Your task to perform on an android device: Open Wikipedia Image 0: 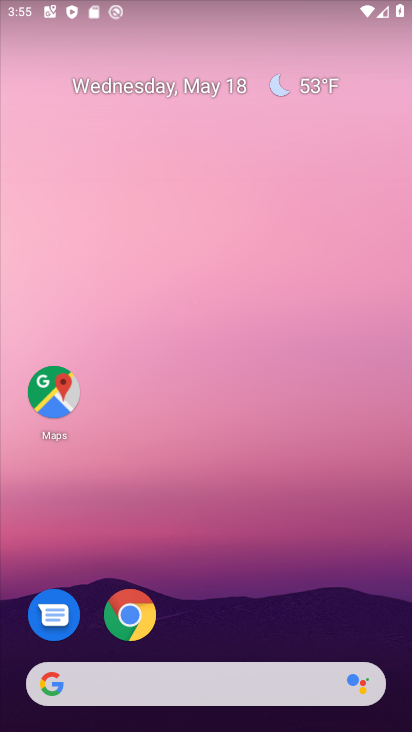
Step 0: click (128, 617)
Your task to perform on an android device: Open Wikipedia Image 1: 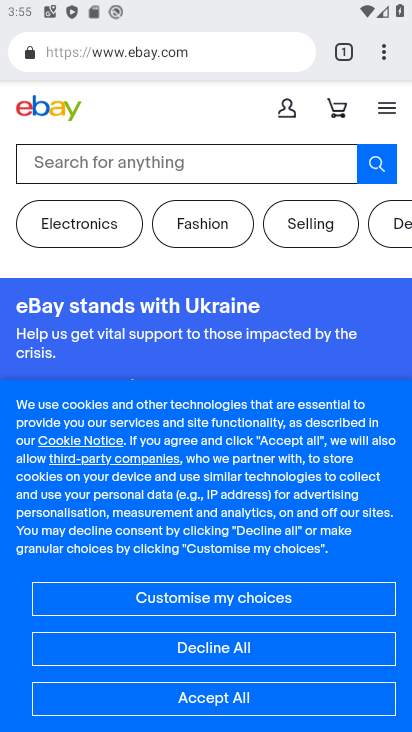
Step 1: click (227, 54)
Your task to perform on an android device: Open Wikipedia Image 2: 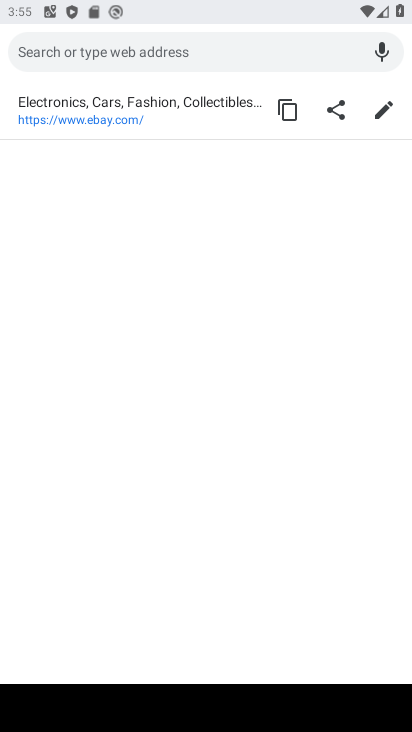
Step 2: type "wikipedia"
Your task to perform on an android device: Open Wikipedia Image 3: 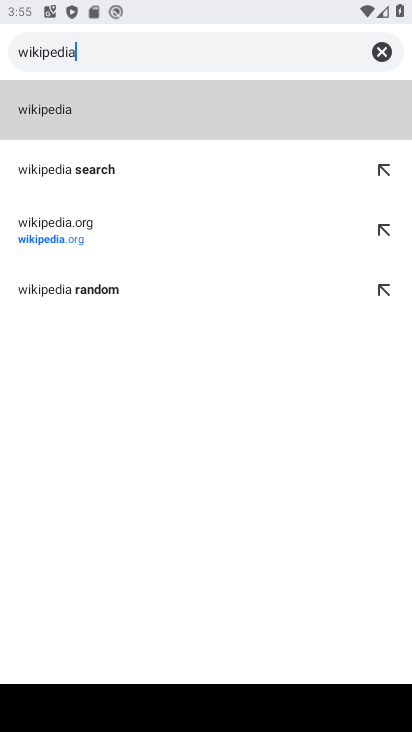
Step 3: click (65, 239)
Your task to perform on an android device: Open Wikipedia Image 4: 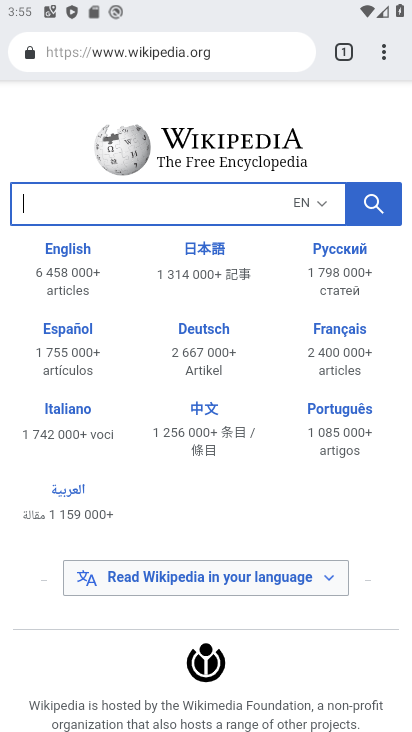
Step 4: task complete